Your task to perform on an android device: Add "acer nitro" to the cart on newegg.com, then select checkout. Image 0: 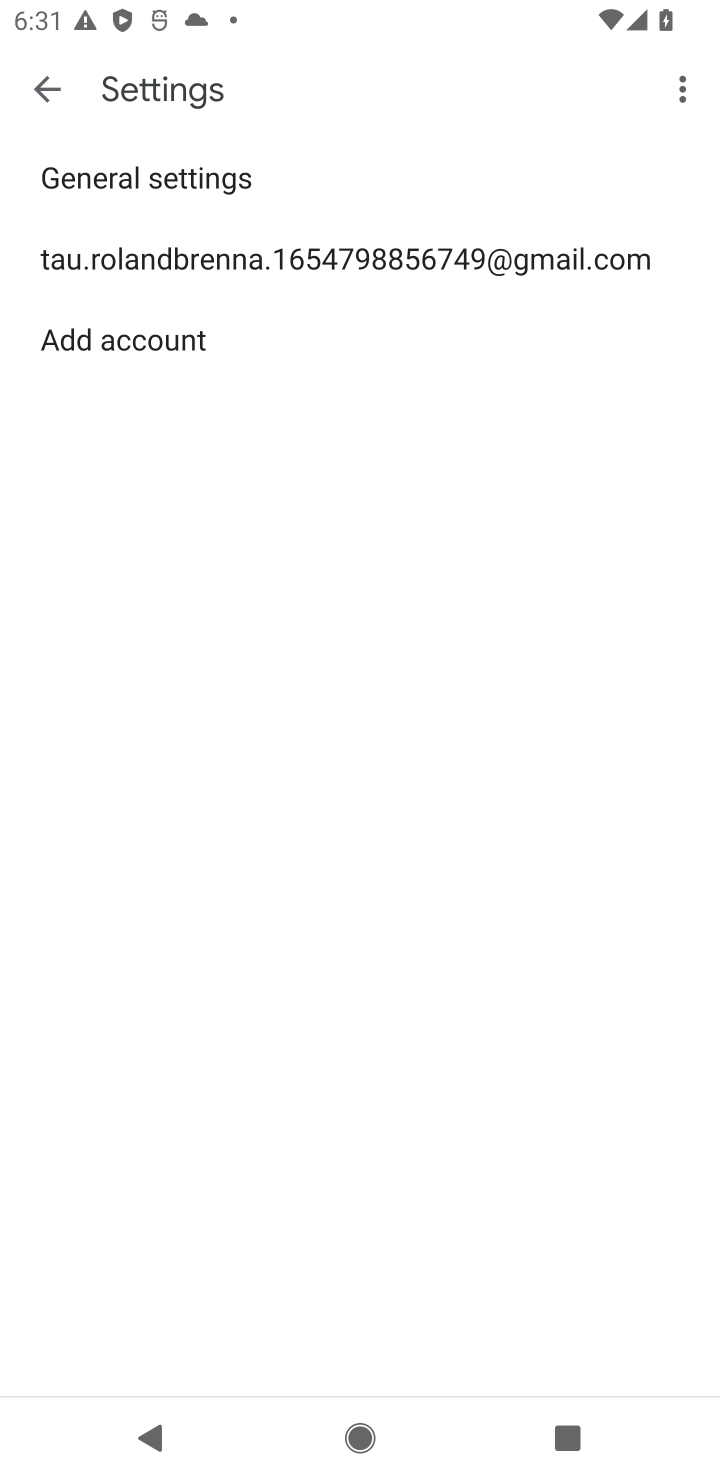
Step 0: press home button
Your task to perform on an android device: Add "acer nitro" to the cart on newegg.com, then select checkout. Image 1: 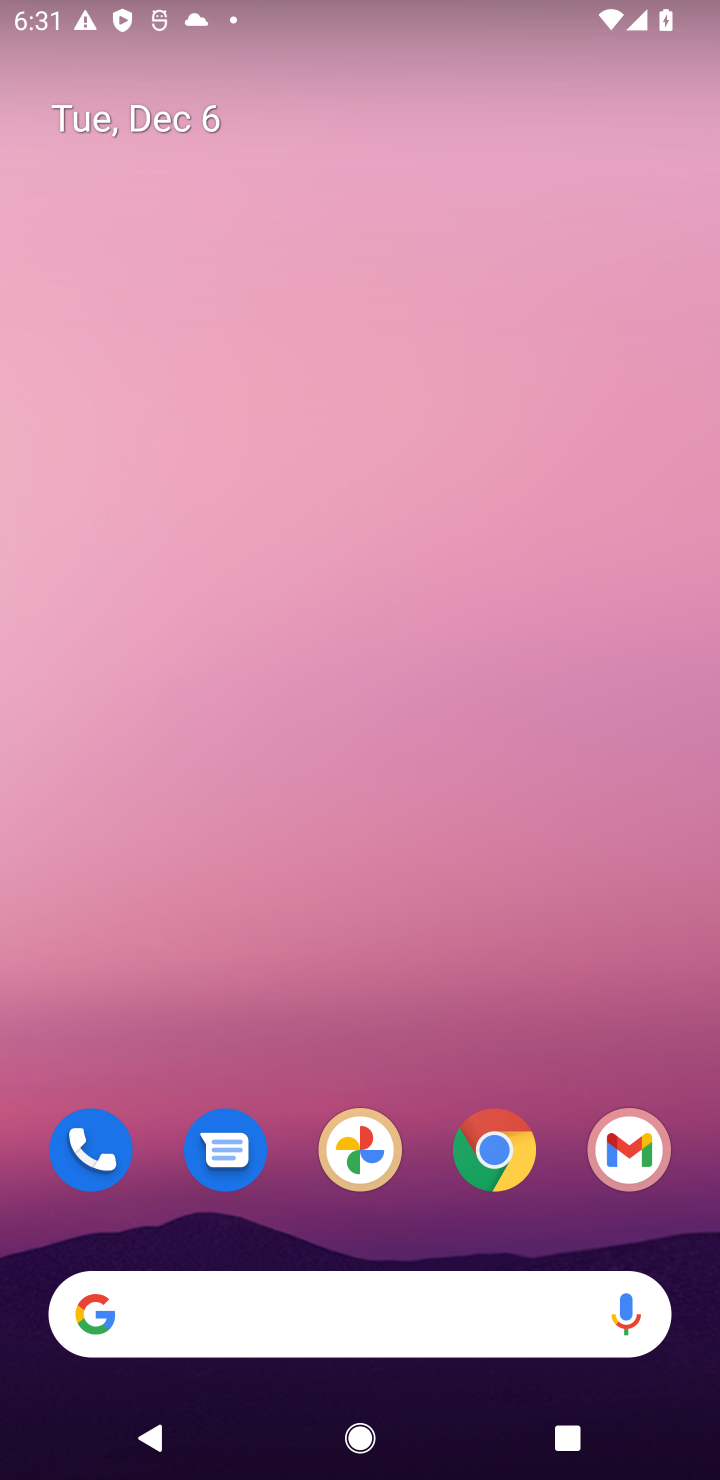
Step 1: click (498, 1168)
Your task to perform on an android device: Add "acer nitro" to the cart on newegg.com, then select checkout. Image 2: 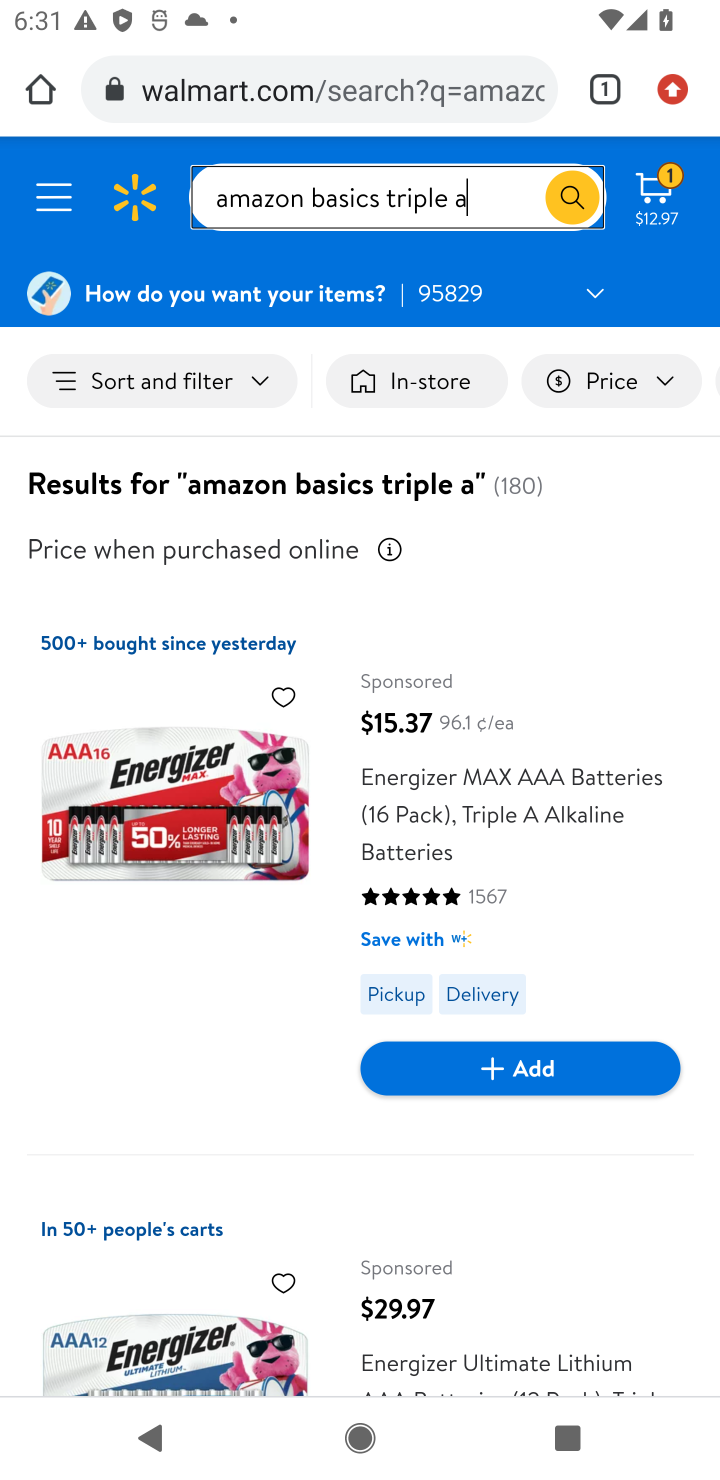
Step 2: click (310, 100)
Your task to perform on an android device: Add "acer nitro" to the cart on newegg.com, then select checkout. Image 3: 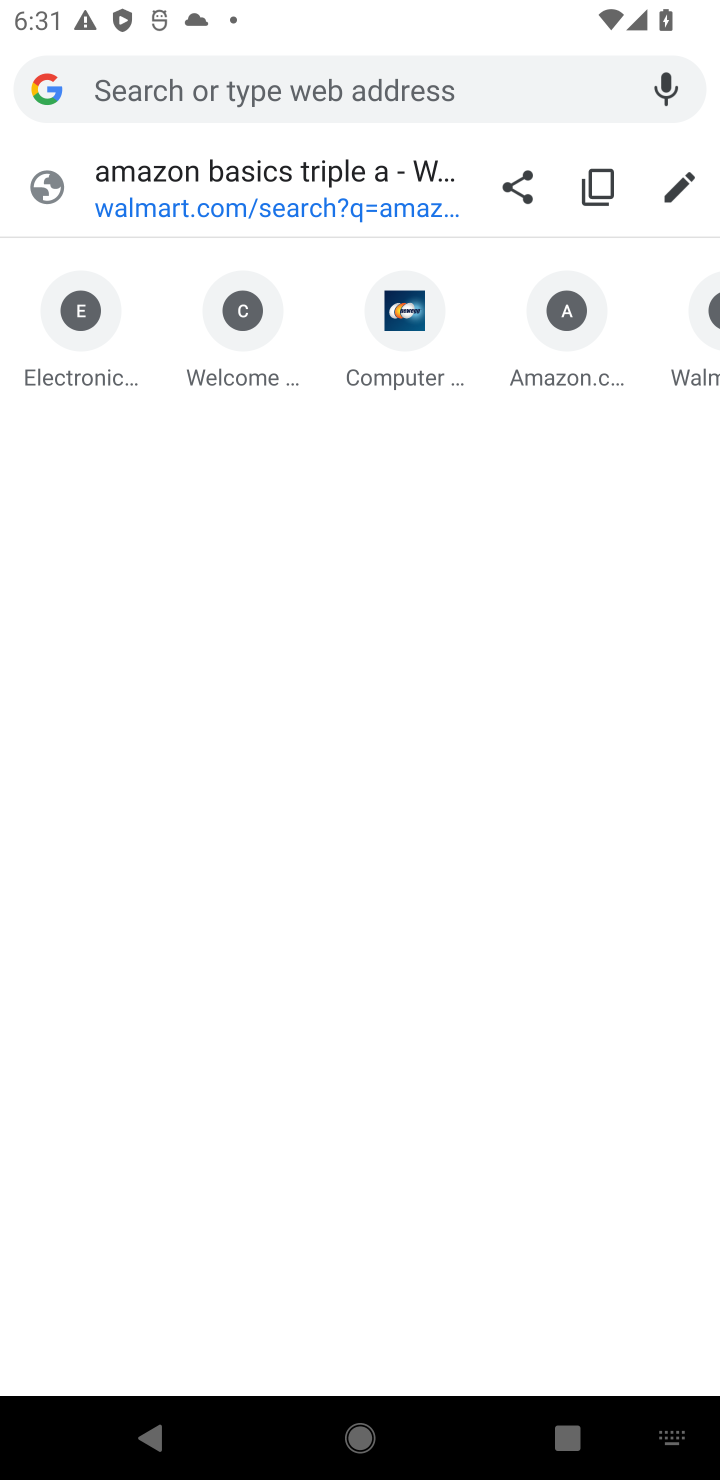
Step 3: click (402, 334)
Your task to perform on an android device: Add "acer nitro" to the cart on newegg.com, then select checkout. Image 4: 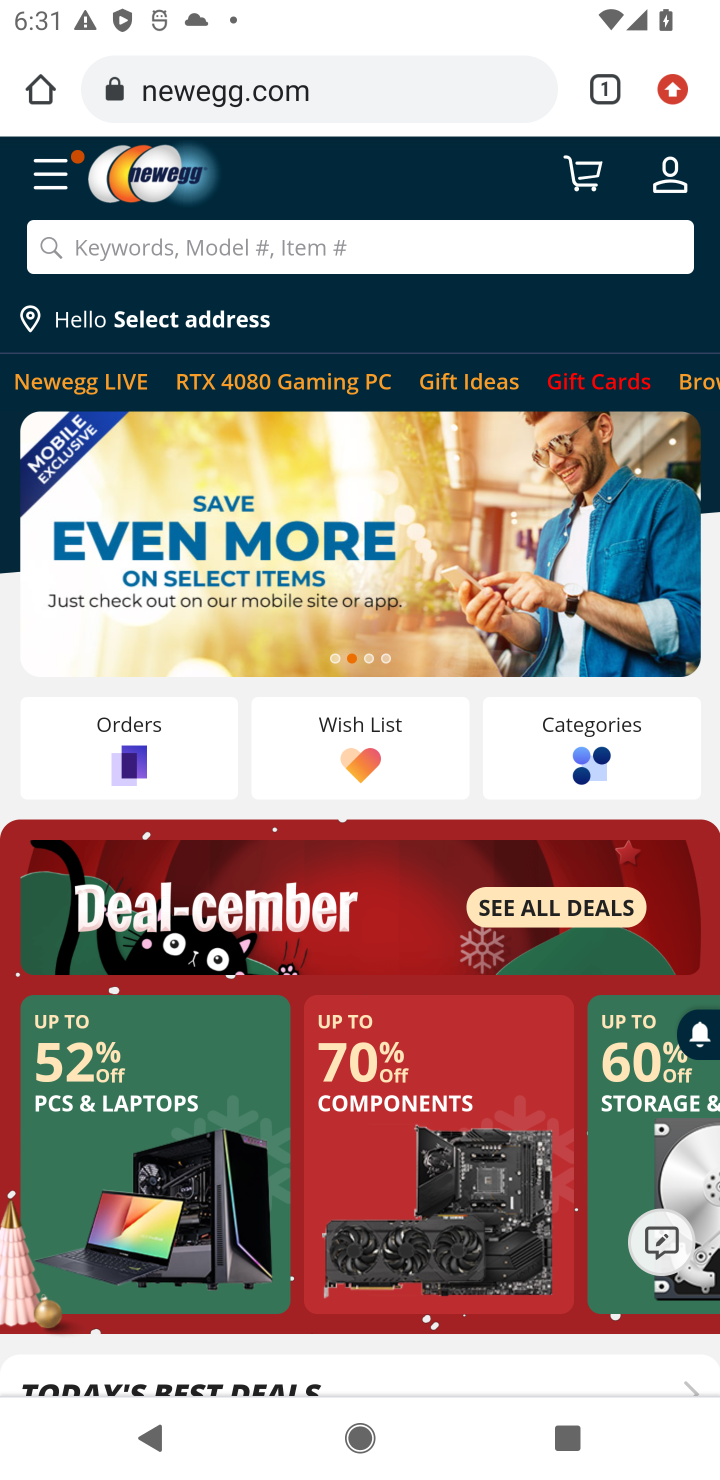
Step 4: click (115, 252)
Your task to perform on an android device: Add "acer nitro" to the cart on newegg.com, then select checkout. Image 5: 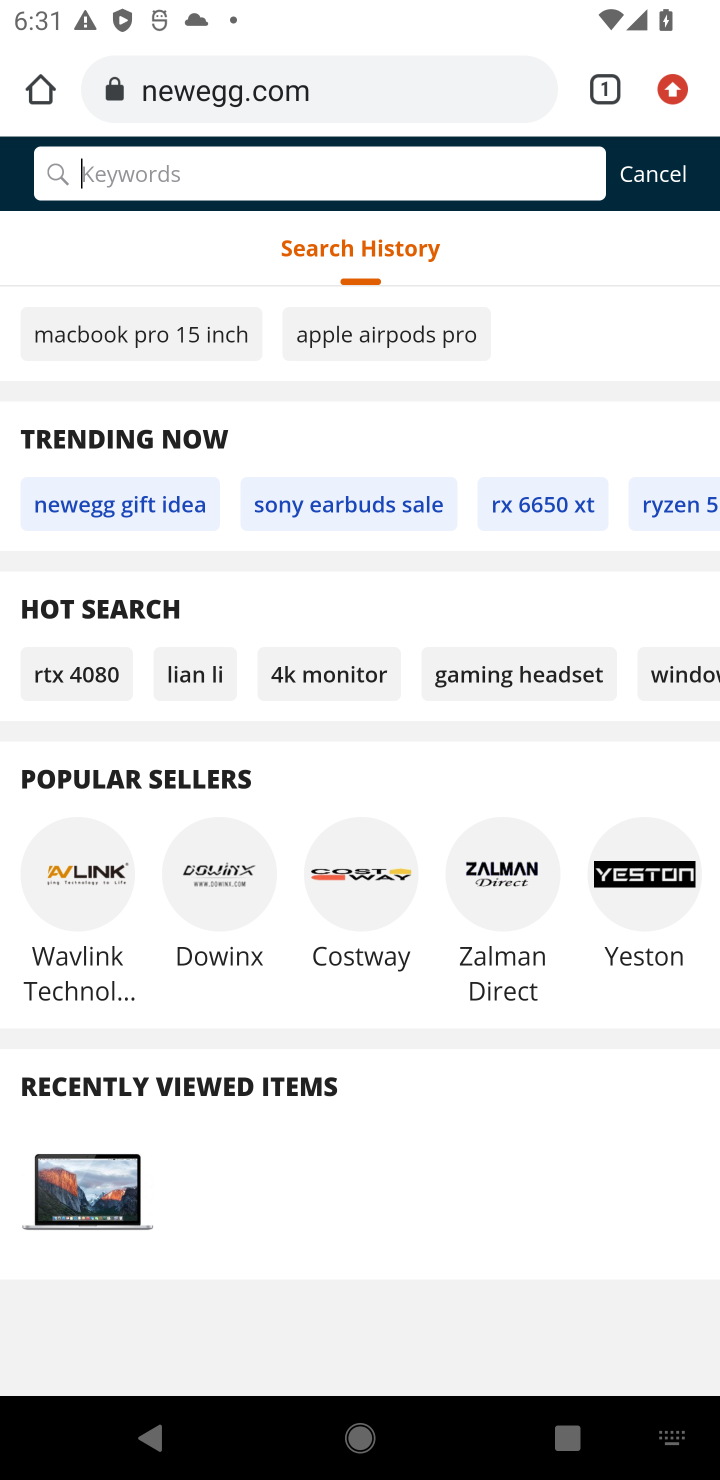
Step 5: type "acer nitro"
Your task to perform on an android device: Add "acer nitro" to the cart on newegg.com, then select checkout. Image 6: 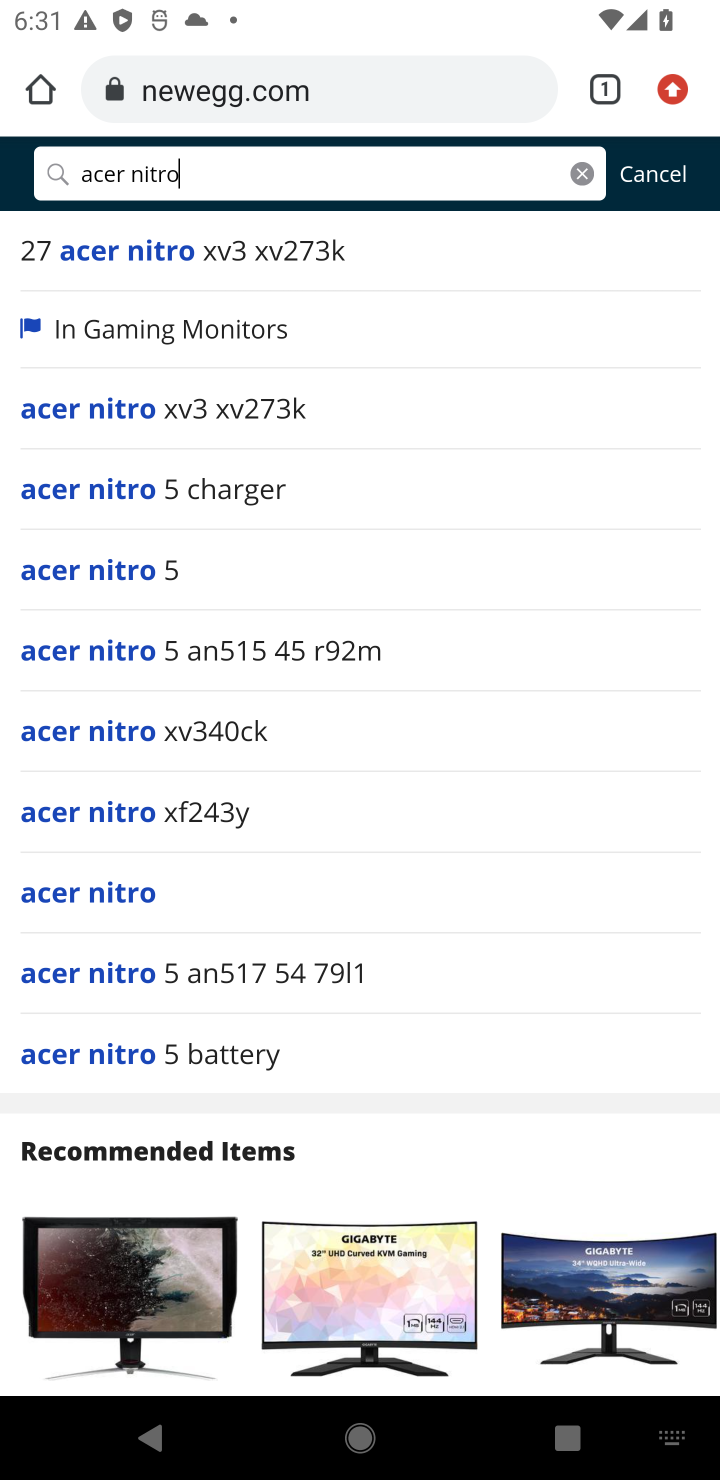
Step 6: click (116, 894)
Your task to perform on an android device: Add "acer nitro" to the cart on newegg.com, then select checkout. Image 7: 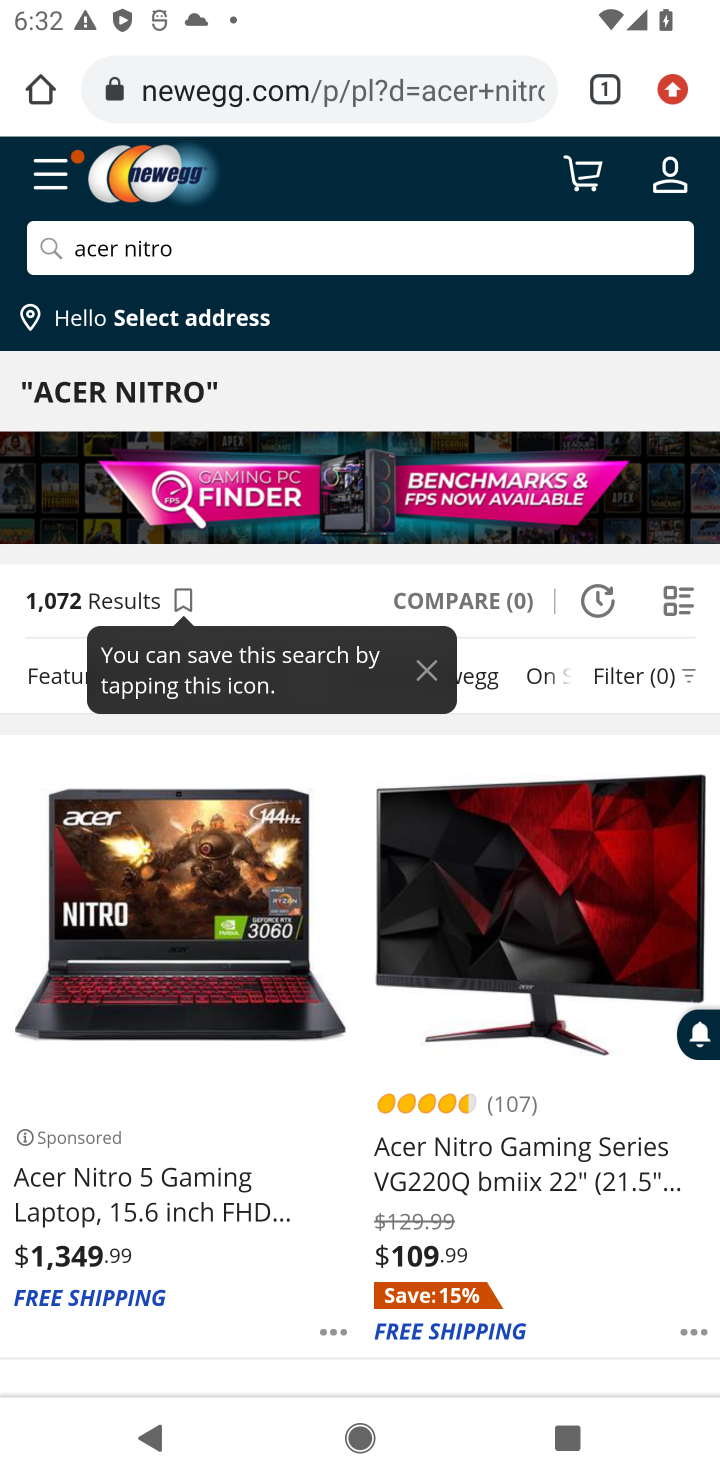
Step 7: click (105, 1227)
Your task to perform on an android device: Add "acer nitro" to the cart on newegg.com, then select checkout. Image 8: 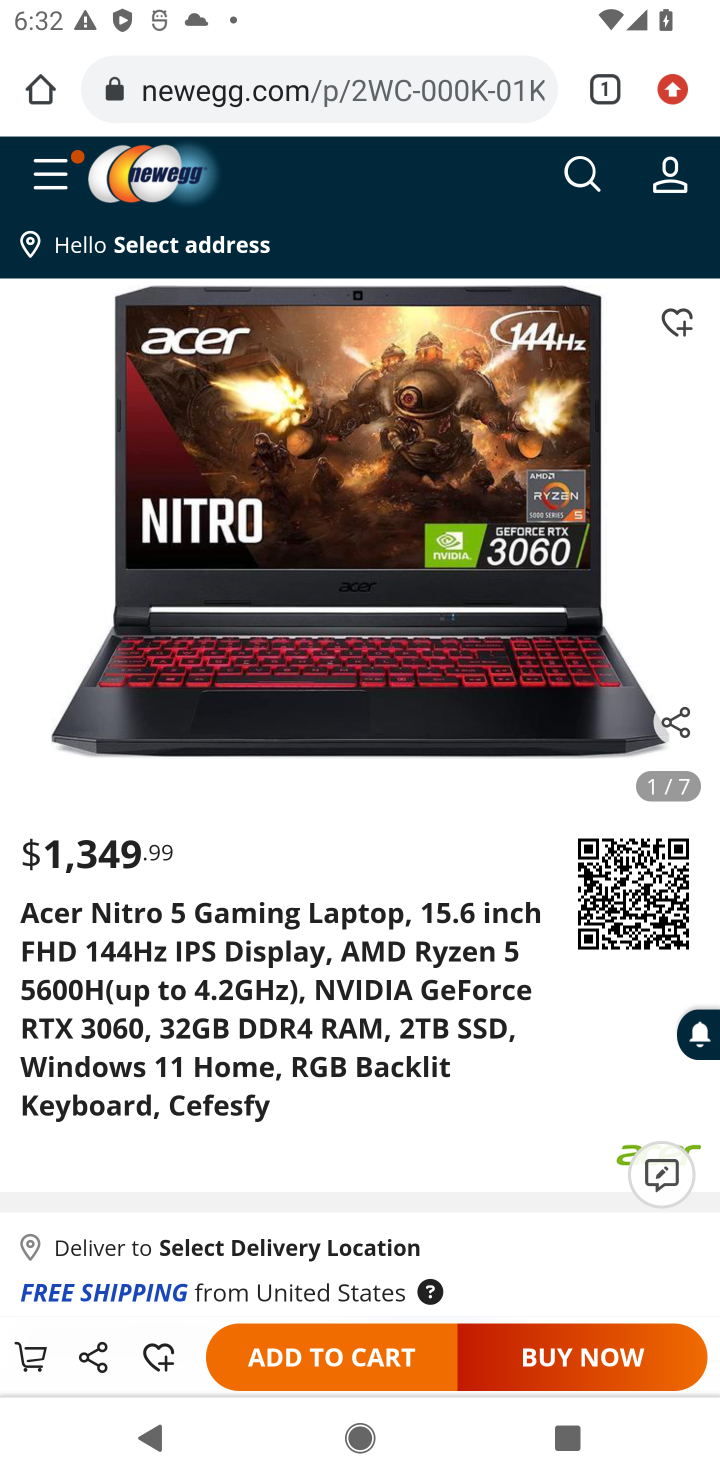
Step 8: click (316, 1366)
Your task to perform on an android device: Add "acer nitro" to the cart on newegg.com, then select checkout. Image 9: 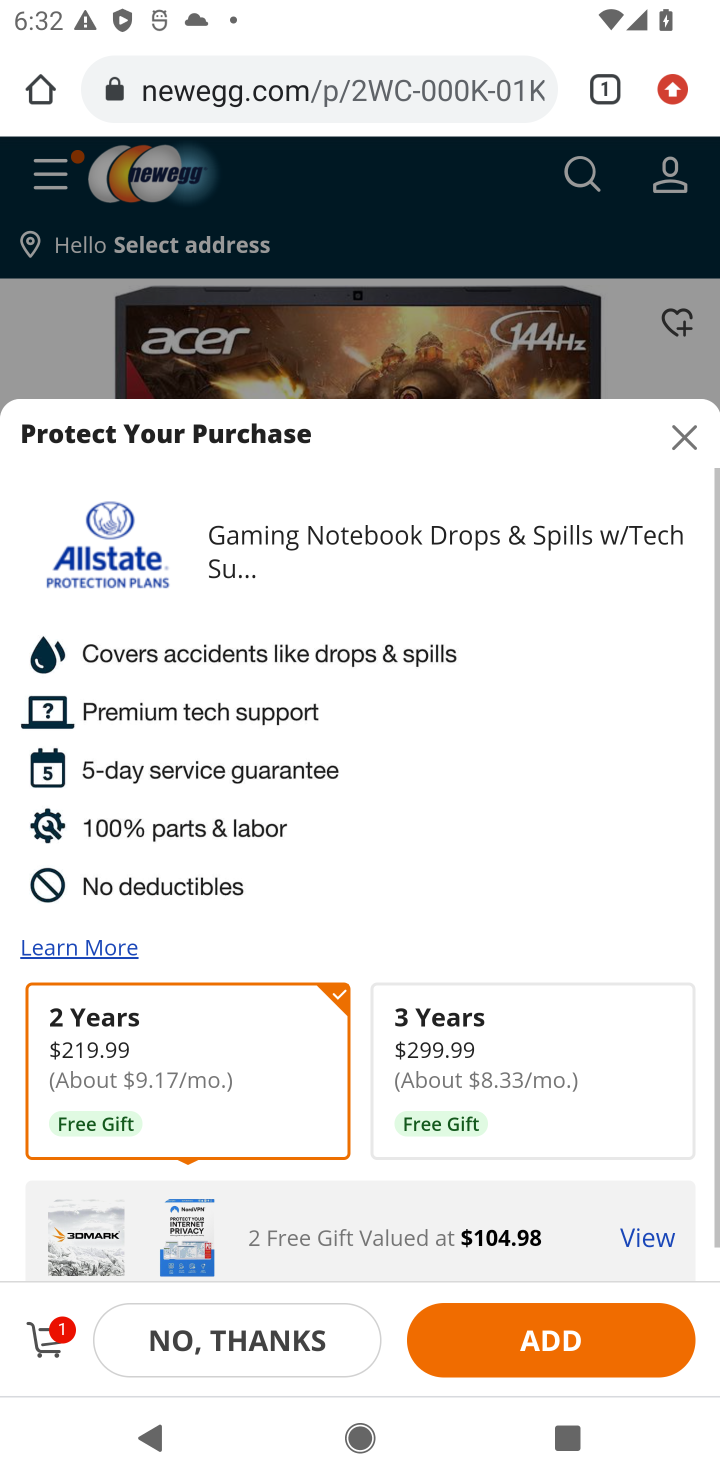
Step 9: click (51, 1333)
Your task to perform on an android device: Add "acer nitro" to the cart on newegg.com, then select checkout. Image 10: 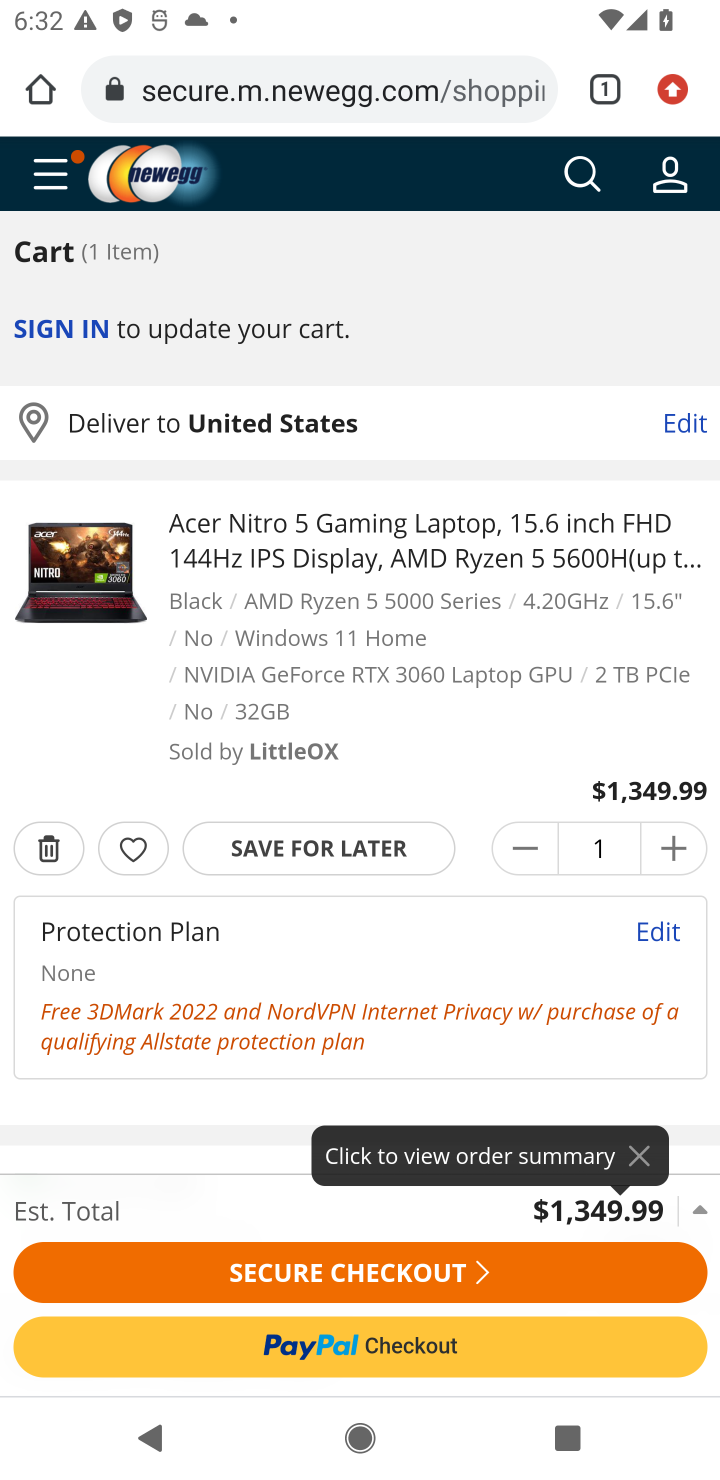
Step 10: click (303, 1272)
Your task to perform on an android device: Add "acer nitro" to the cart on newegg.com, then select checkout. Image 11: 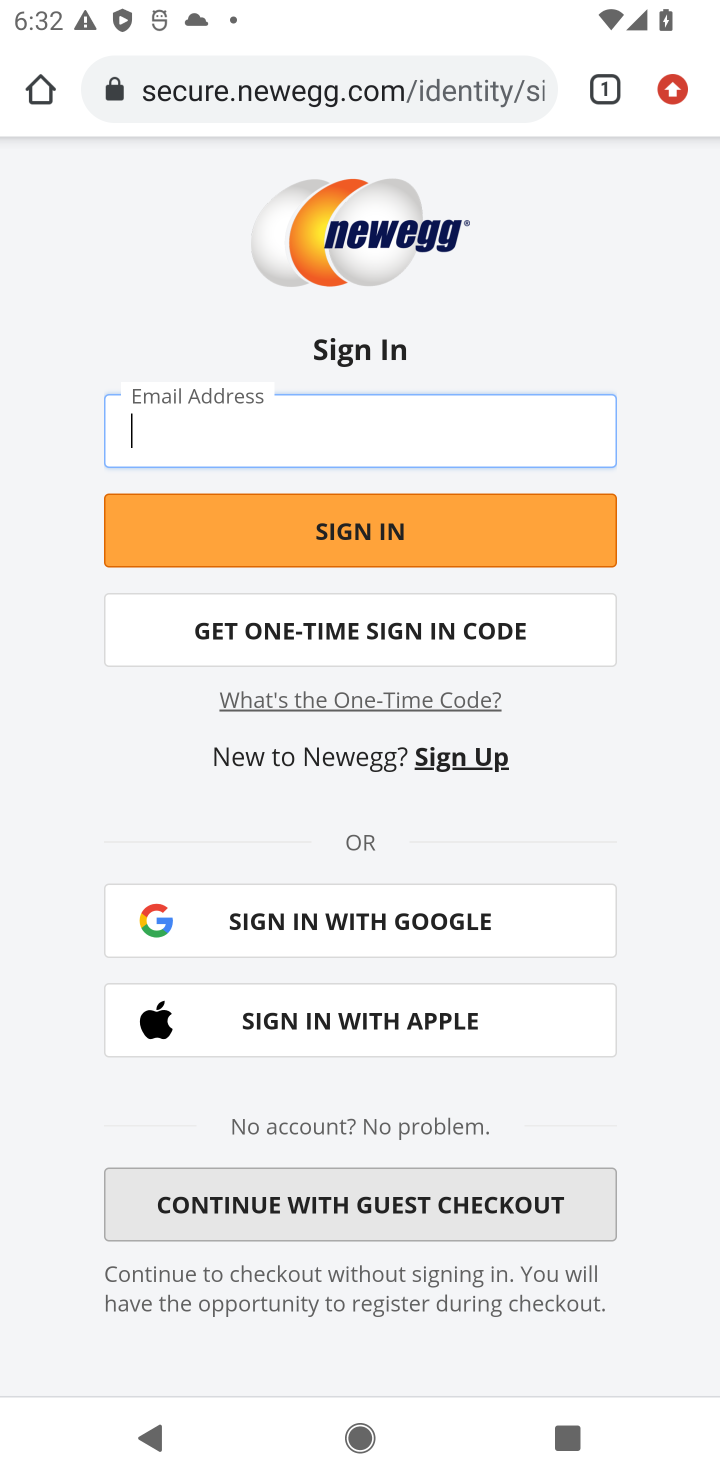
Step 11: task complete